Your task to perform on an android device: Open Google Chrome and click the shortcut for Amazon.com Image 0: 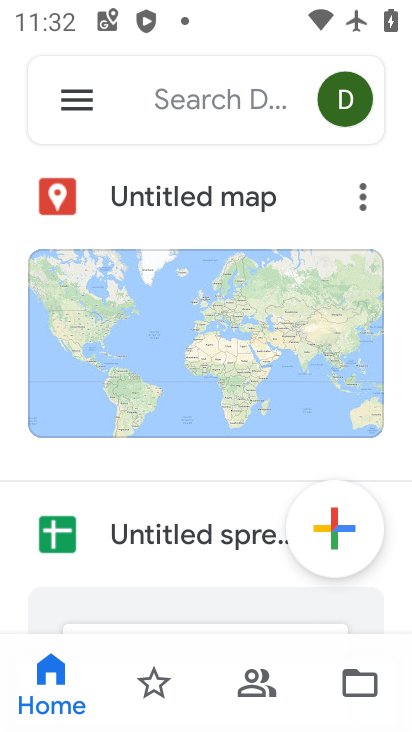
Step 0: press home button
Your task to perform on an android device: Open Google Chrome and click the shortcut for Amazon.com Image 1: 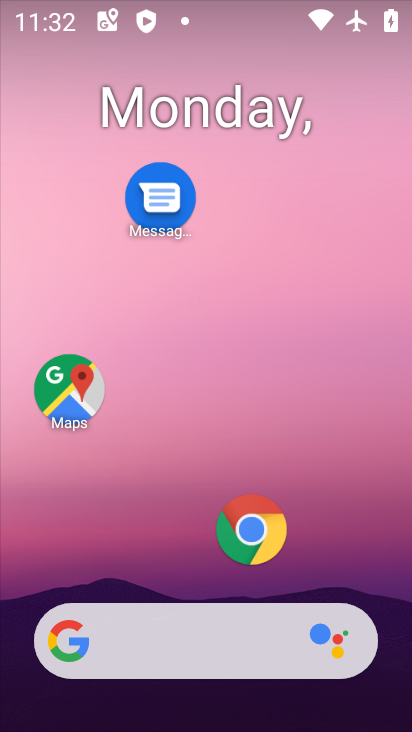
Step 1: drag from (145, 559) to (214, 195)
Your task to perform on an android device: Open Google Chrome and click the shortcut for Amazon.com Image 2: 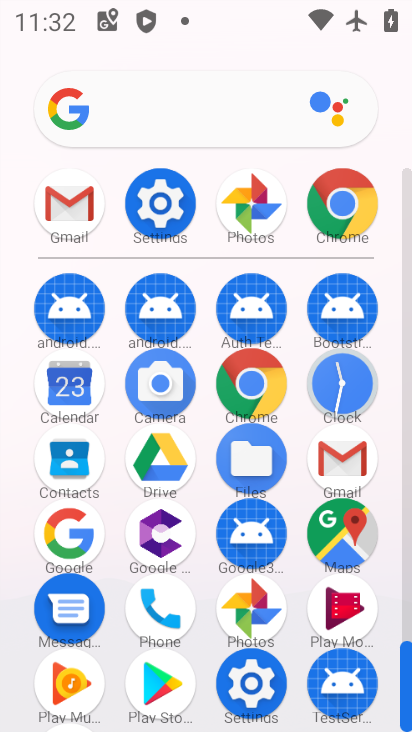
Step 2: click (263, 384)
Your task to perform on an android device: Open Google Chrome and click the shortcut for Amazon.com Image 3: 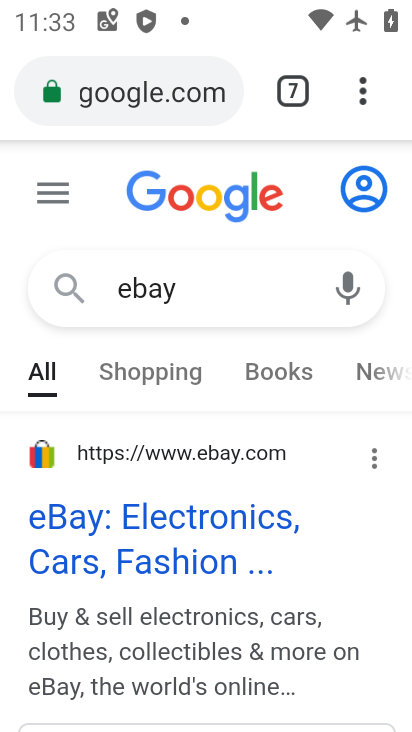
Step 3: click (296, 103)
Your task to perform on an android device: Open Google Chrome and click the shortcut for Amazon.com Image 4: 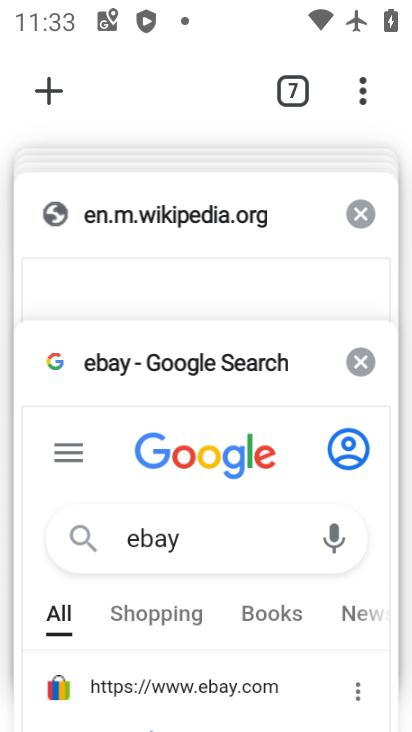
Step 4: click (51, 86)
Your task to perform on an android device: Open Google Chrome and click the shortcut for Amazon.com Image 5: 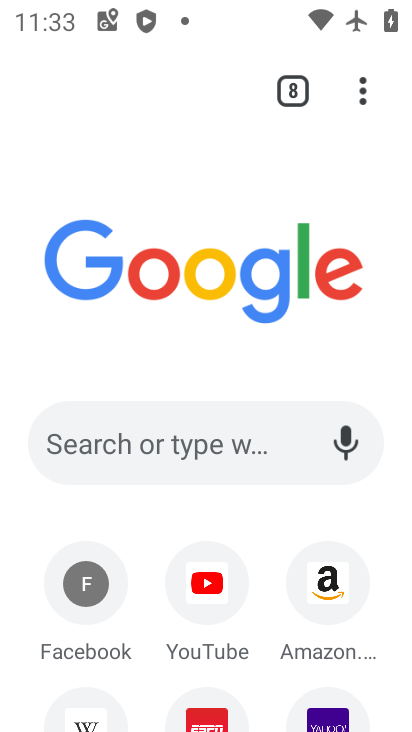
Step 5: click (180, 454)
Your task to perform on an android device: Open Google Chrome and click the shortcut for Amazon.com Image 6: 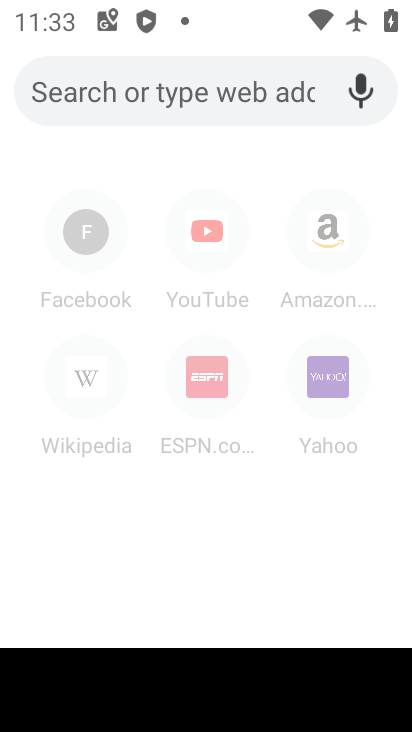
Step 6: click (184, 560)
Your task to perform on an android device: Open Google Chrome and click the shortcut for Amazon.com Image 7: 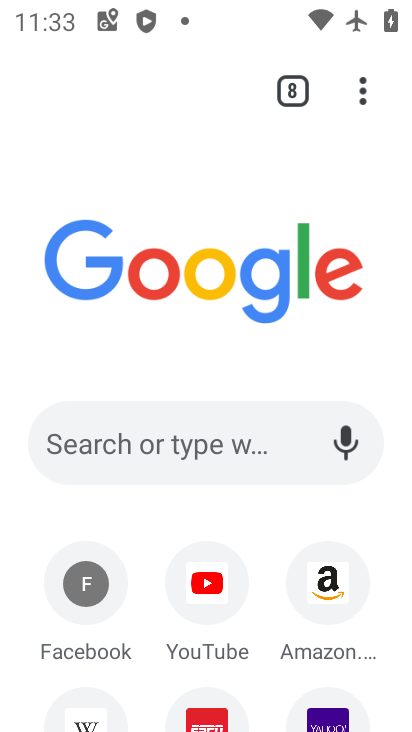
Step 7: click (311, 614)
Your task to perform on an android device: Open Google Chrome and click the shortcut for Amazon.com Image 8: 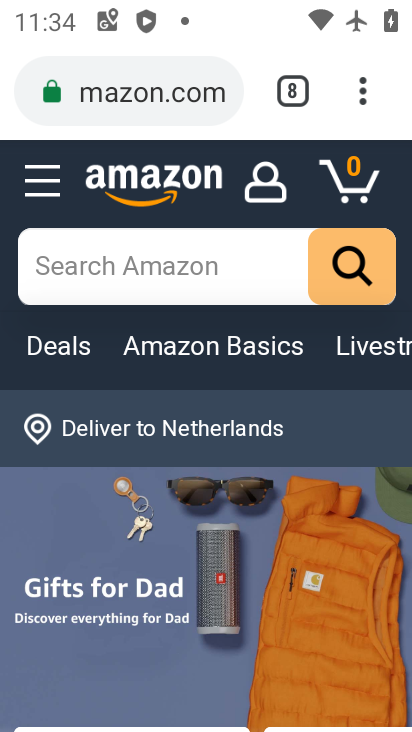
Step 8: task complete